Your task to perform on an android device: Go to settings Image 0: 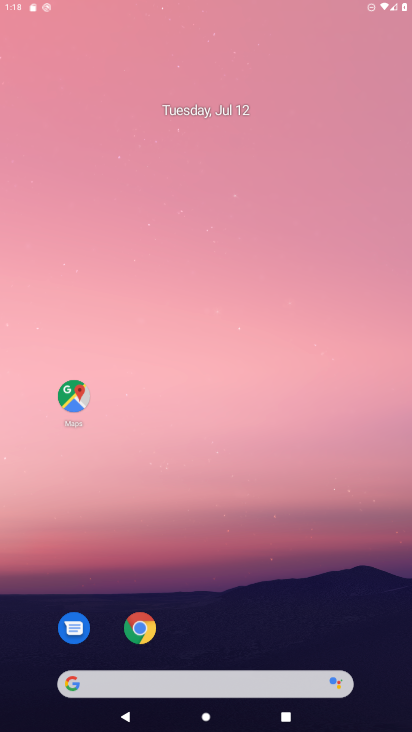
Step 0: press home button
Your task to perform on an android device: Go to settings Image 1: 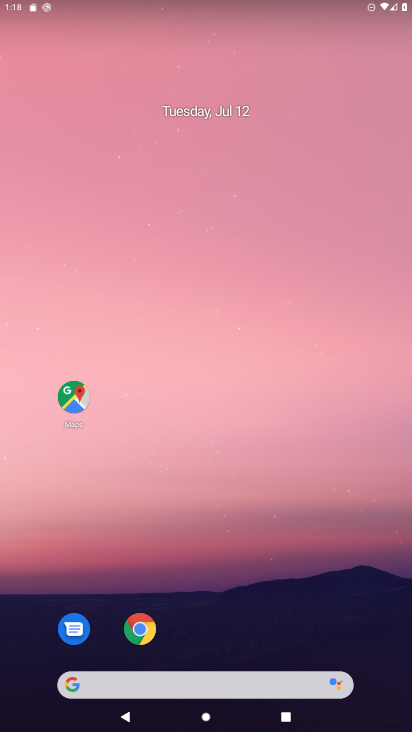
Step 1: drag from (231, 647) to (267, 54)
Your task to perform on an android device: Go to settings Image 2: 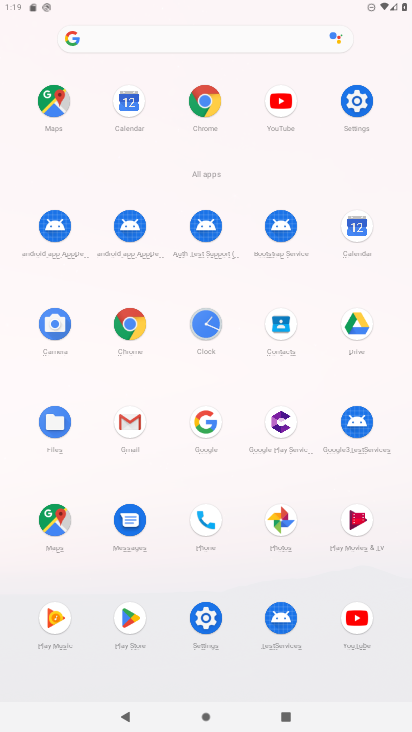
Step 2: click (360, 106)
Your task to perform on an android device: Go to settings Image 3: 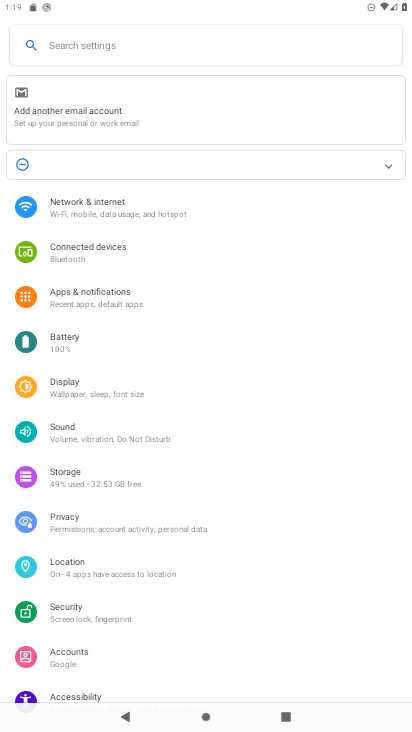
Step 3: task complete